Your task to perform on an android device: What is the news today? Image 0: 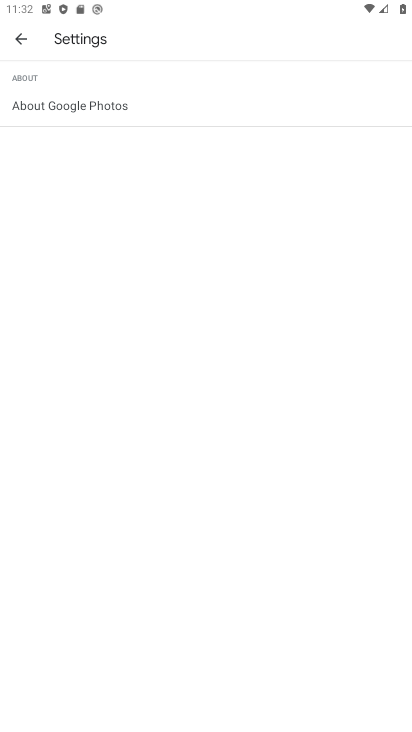
Step 0: press home button
Your task to perform on an android device: What is the news today? Image 1: 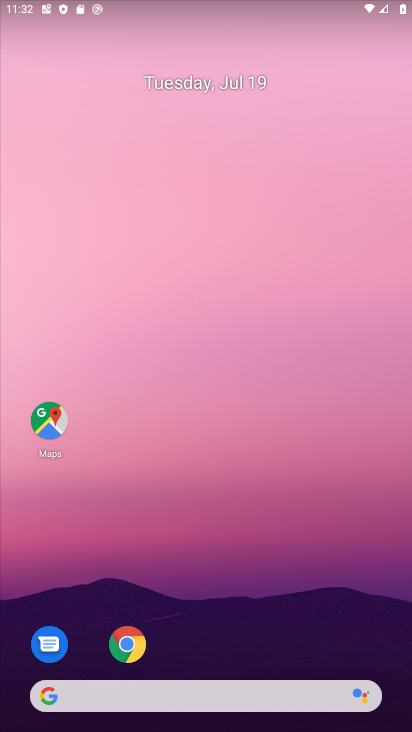
Step 1: click (68, 699)
Your task to perform on an android device: What is the news today? Image 2: 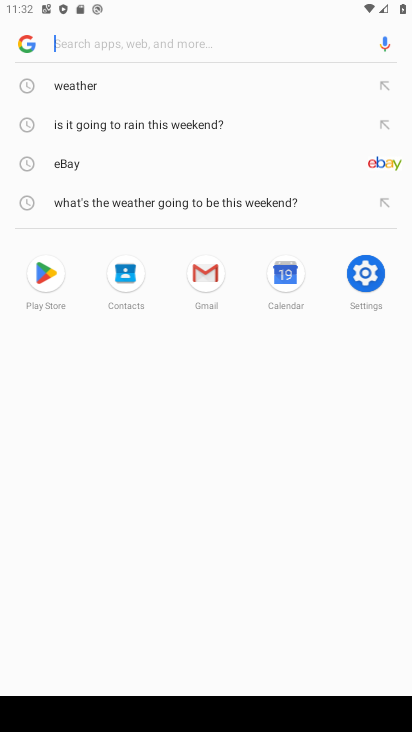
Step 2: type "What is the news today?"
Your task to perform on an android device: What is the news today? Image 3: 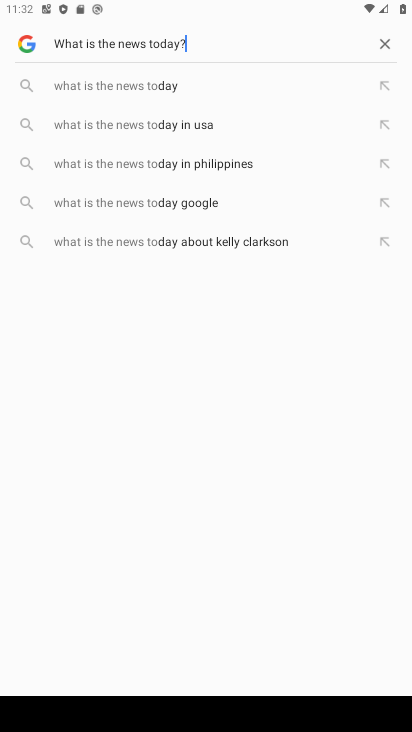
Step 3: type ""
Your task to perform on an android device: What is the news today? Image 4: 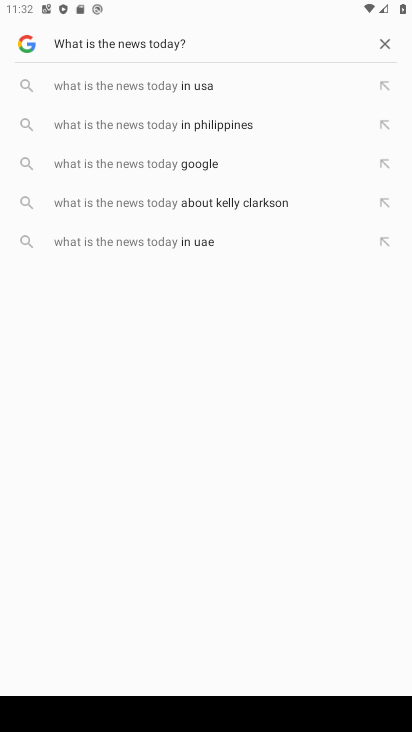
Step 4: type ""
Your task to perform on an android device: What is the news today? Image 5: 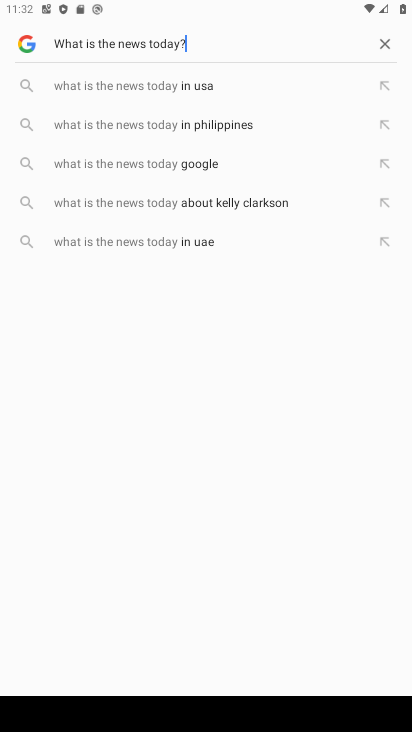
Step 5: type ""
Your task to perform on an android device: What is the news today? Image 6: 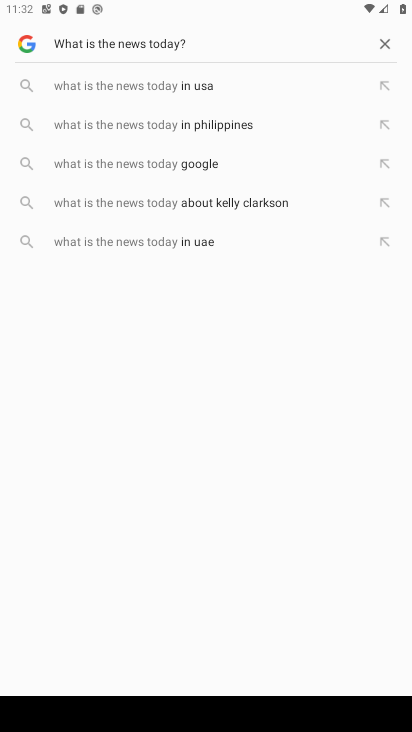
Step 6: task complete